Your task to perform on an android device: How much does a 2 bedroom apartment rent for in Los Angeles? Image 0: 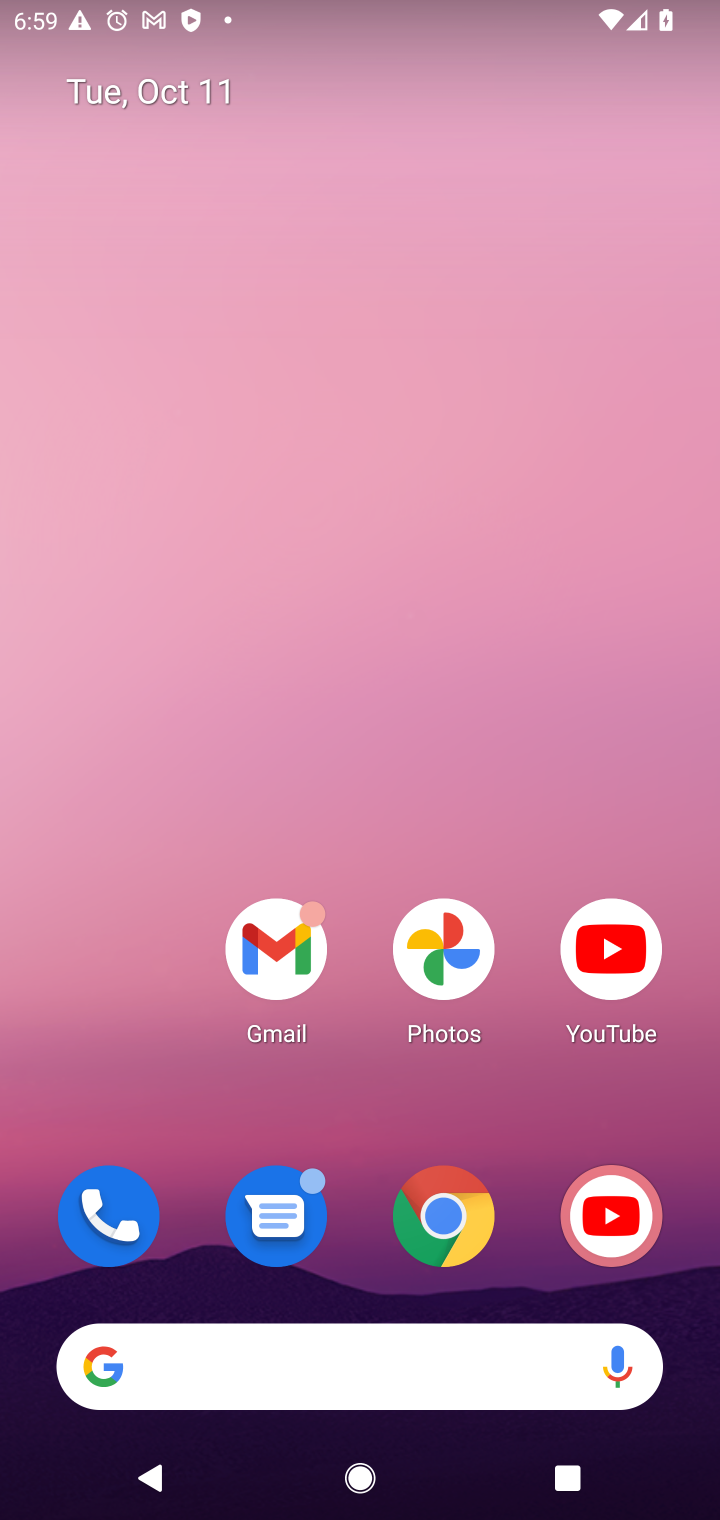
Step 0: click (413, 1222)
Your task to perform on an android device: How much does a 2 bedroom apartment rent for in Los Angeles? Image 1: 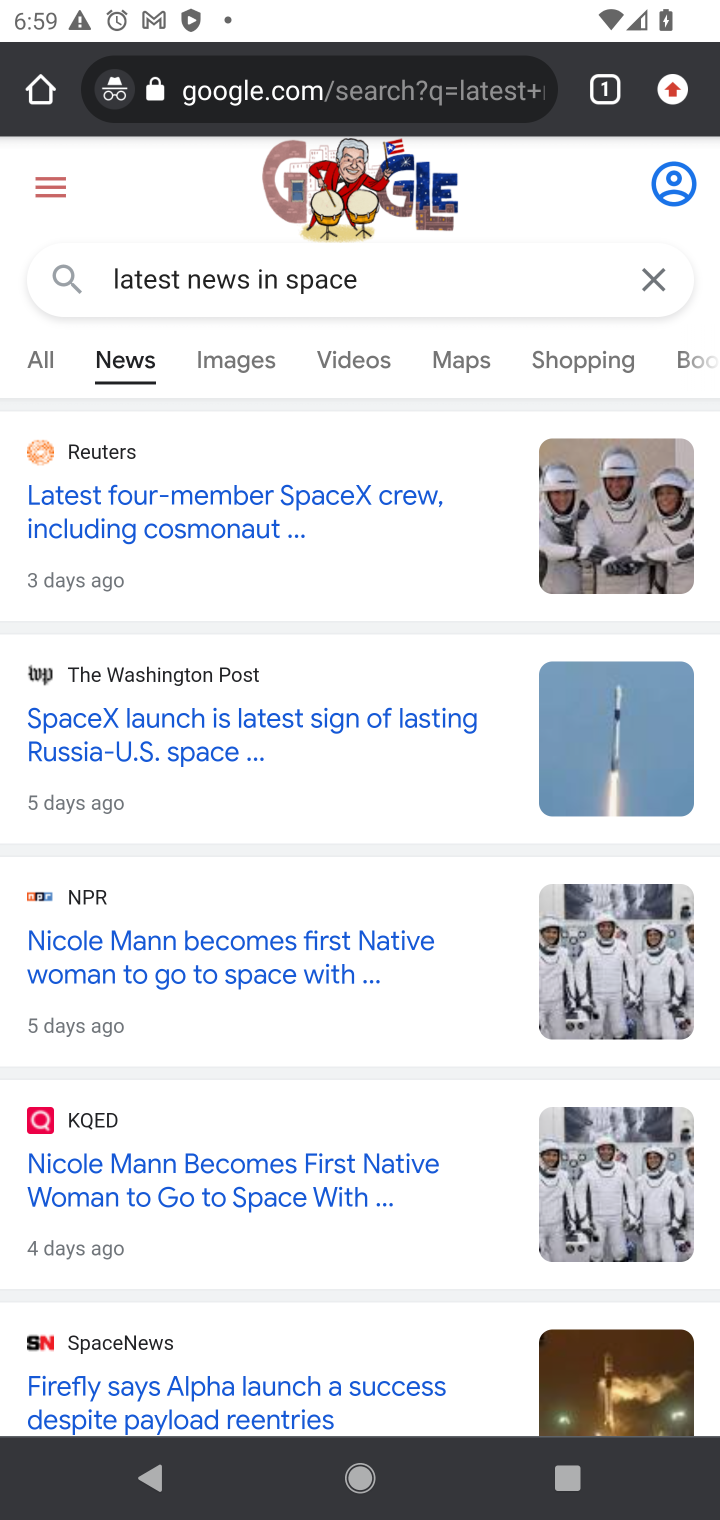
Step 1: click (43, 375)
Your task to perform on an android device: How much does a 2 bedroom apartment rent for in Los Angeles? Image 2: 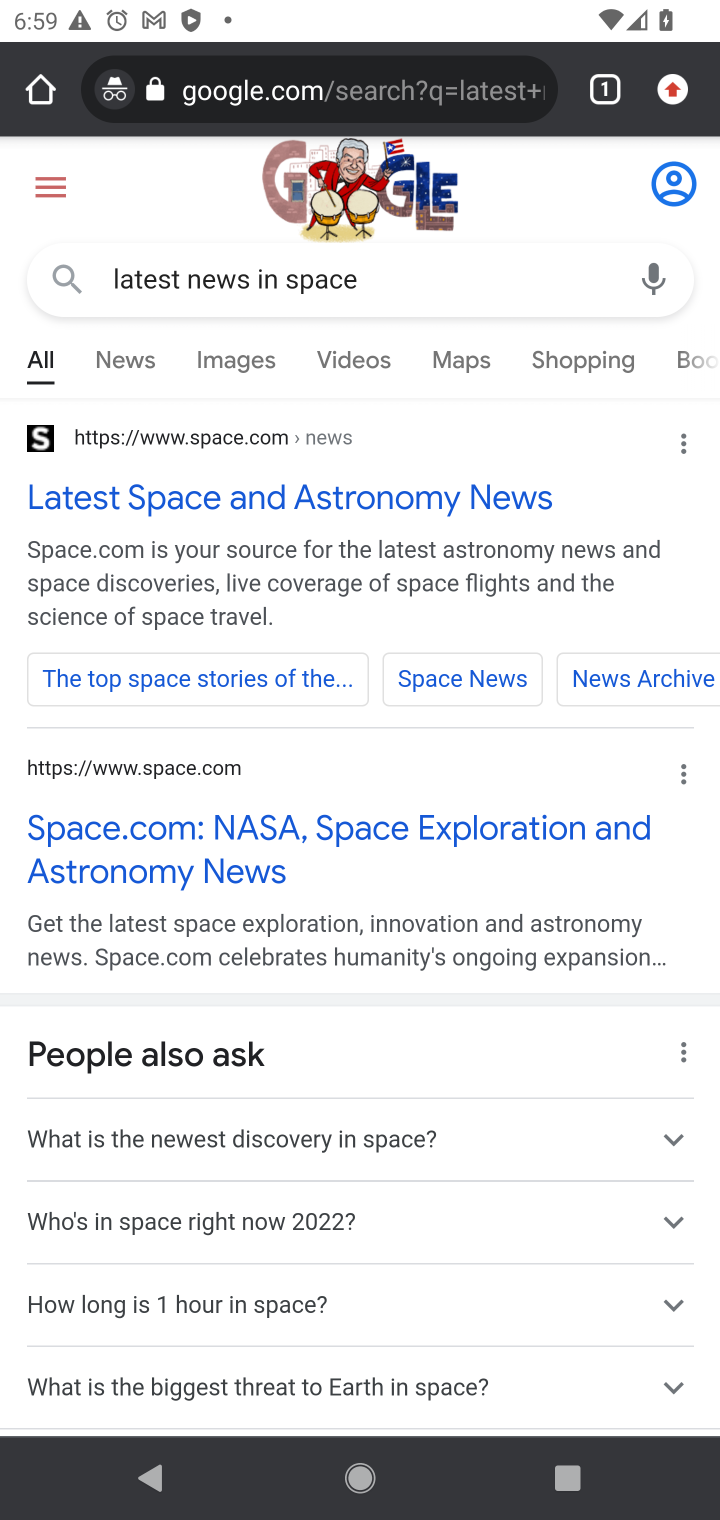
Step 2: click (378, 295)
Your task to perform on an android device: How much does a 2 bedroom apartment rent for in Los Angeles? Image 3: 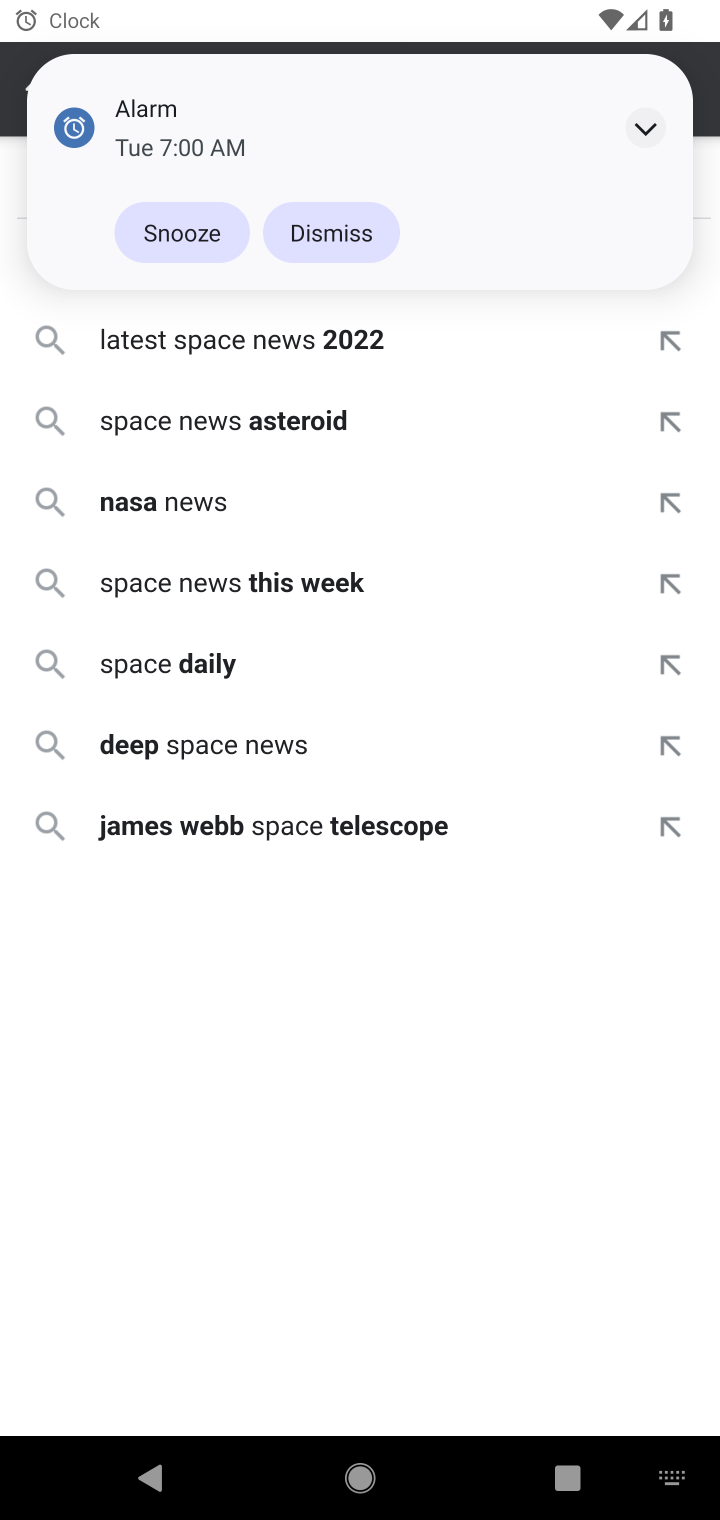
Step 3: click (203, 235)
Your task to perform on an android device: How much does a 2 bedroom apartment rent for in Los Angeles? Image 4: 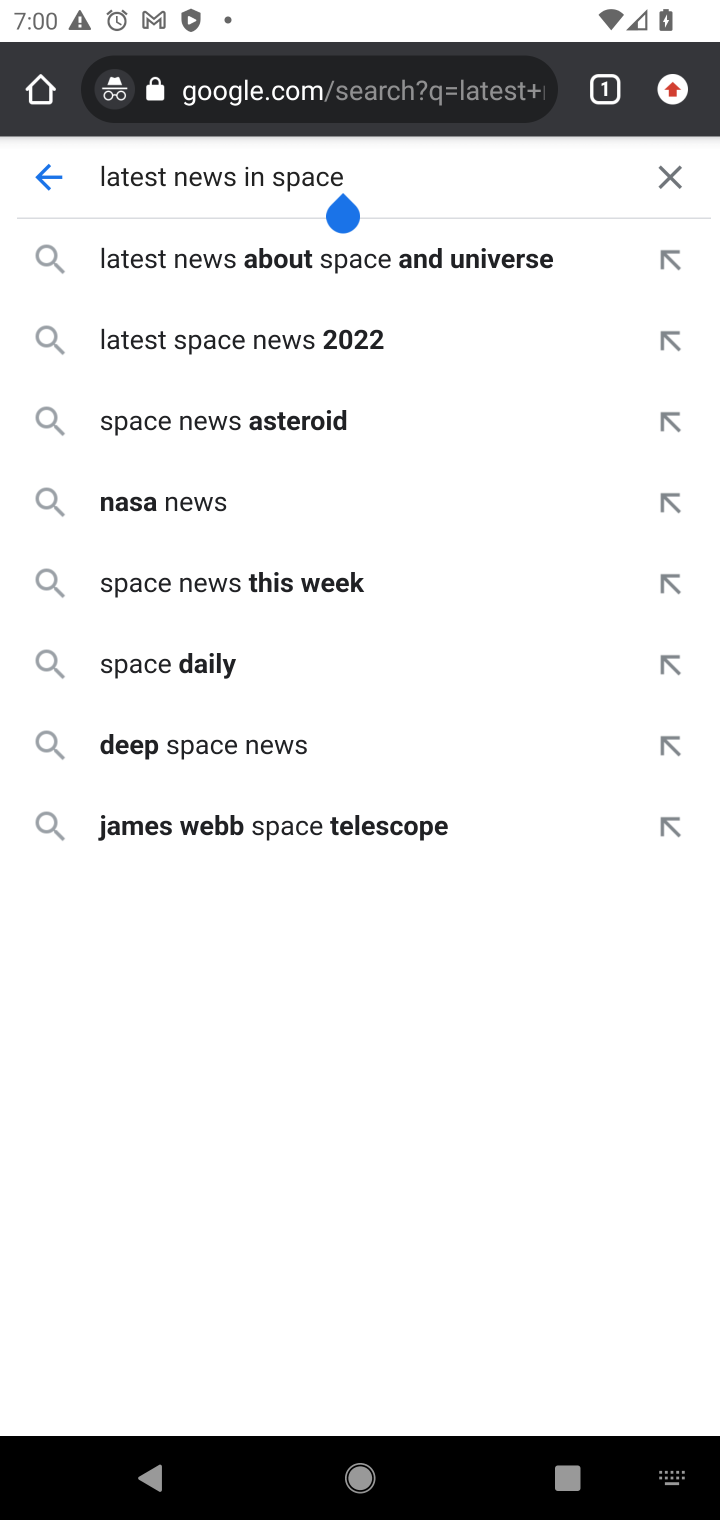
Step 4: click (662, 167)
Your task to perform on an android device: How much does a 2 bedroom apartment rent for in Los Angeles? Image 5: 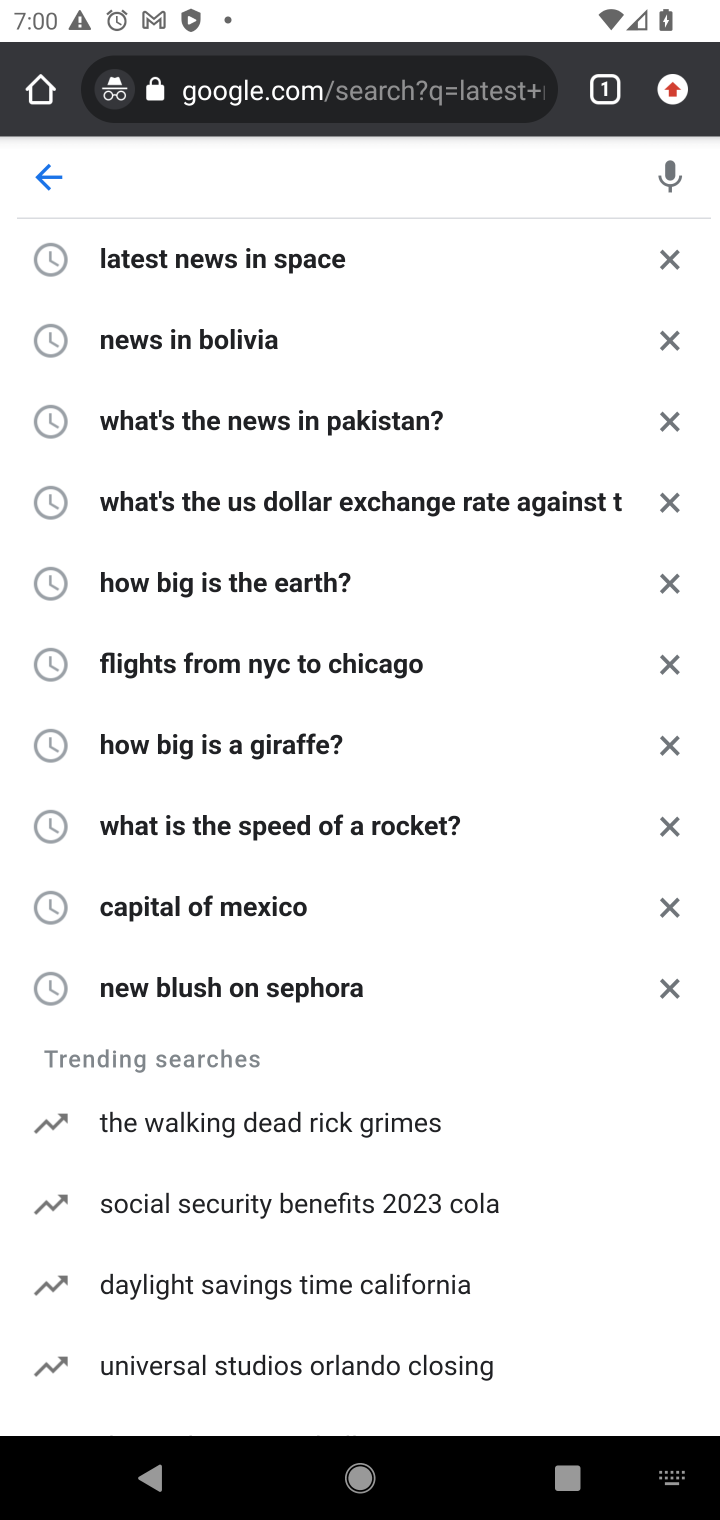
Step 5: type "How much does a 2 bedroom apartment rent for in Los Angeles?"
Your task to perform on an android device: How much does a 2 bedroom apartment rent for in Los Angeles? Image 6: 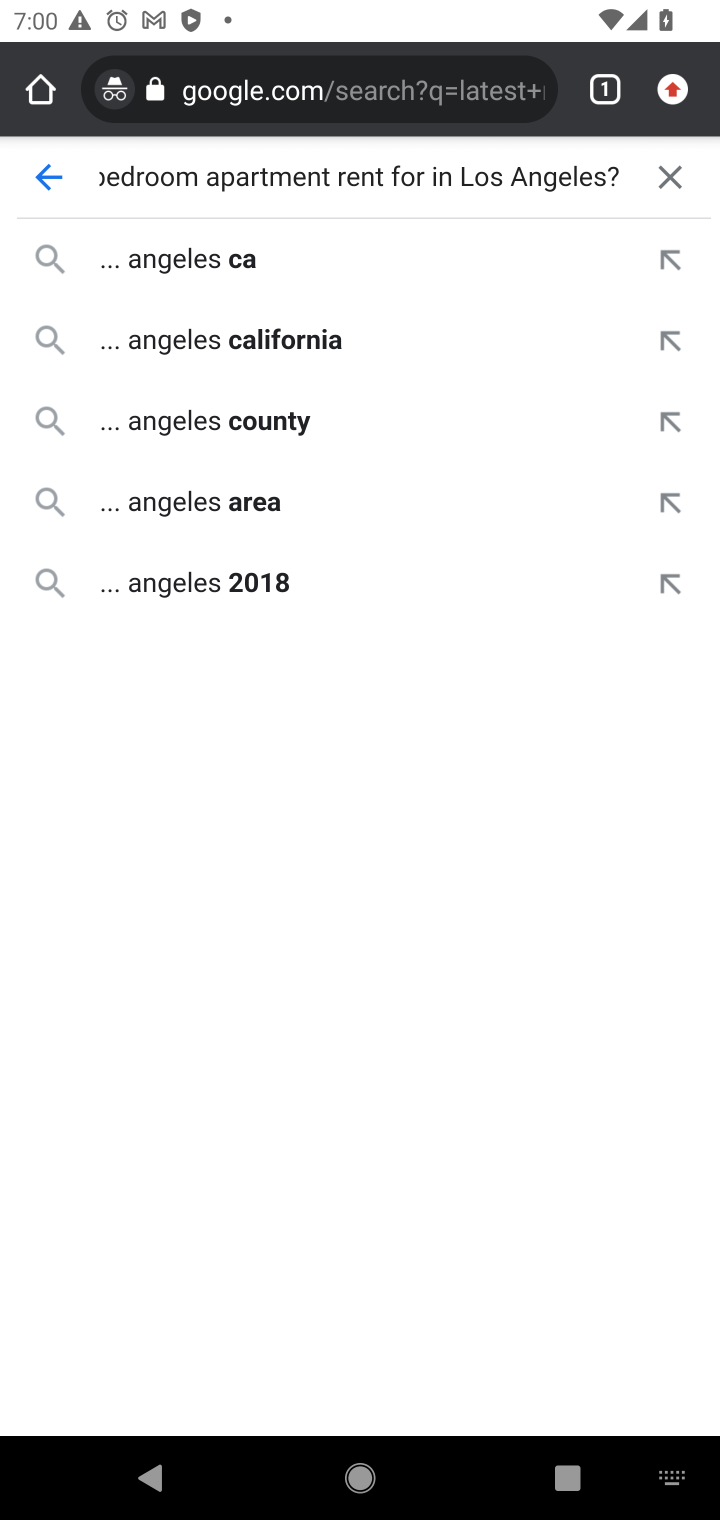
Step 6: press enter
Your task to perform on an android device: How much does a 2 bedroom apartment rent for in Los Angeles? Image 7: 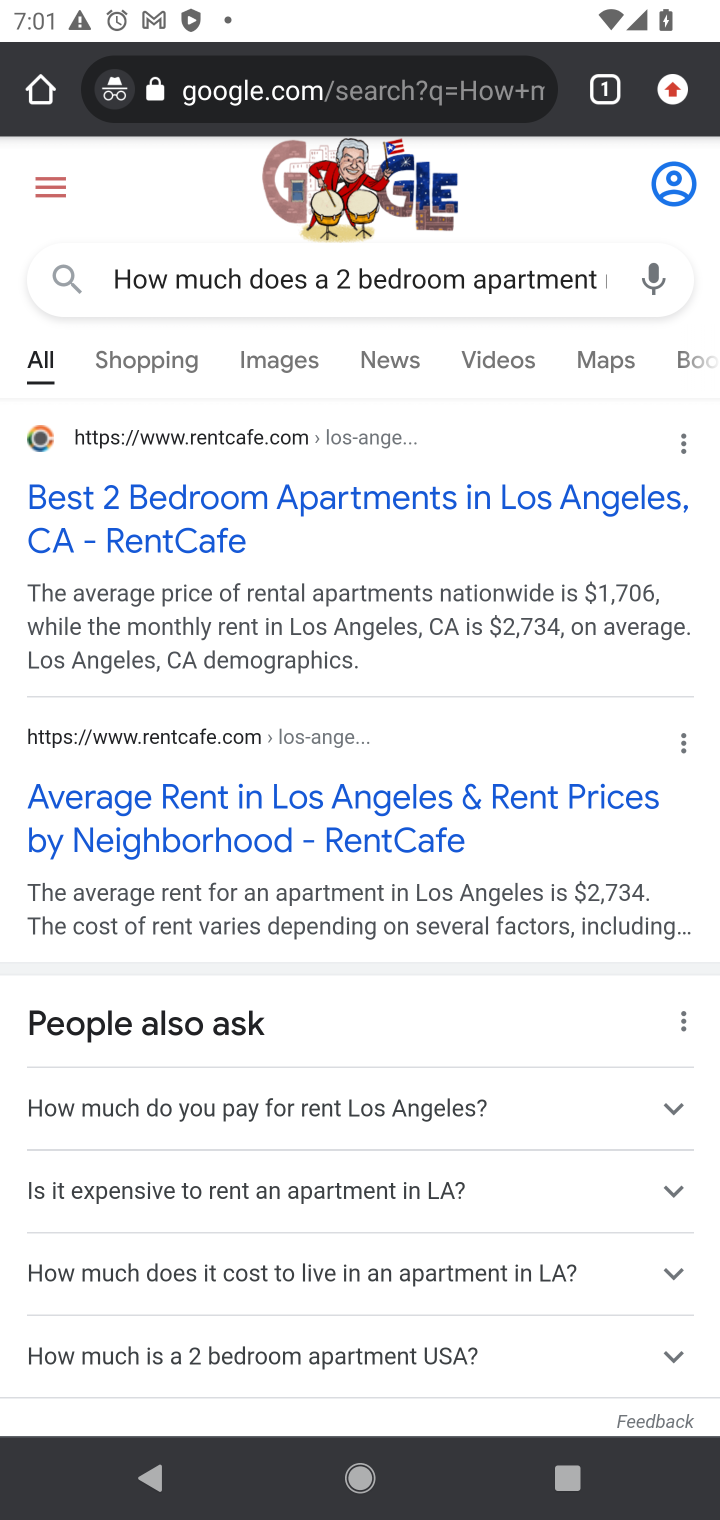
Step 7: drag from (353, 873) to (138, 61)
Your task to perform on an android device: How much does a 2 bedroom apartment rent for in Los Angeles? Image 8: 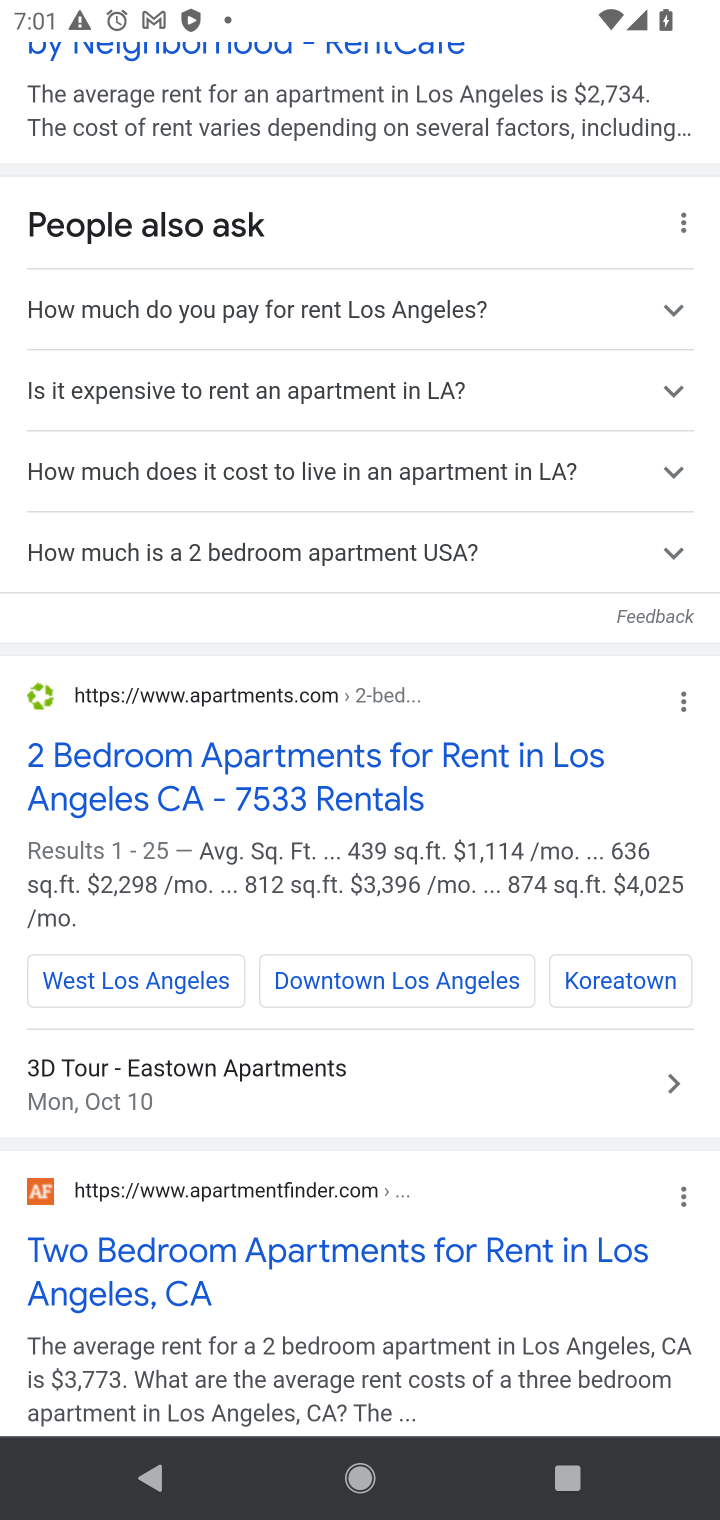
Step 8: click (258, 750)
Your task to perform on an android device: How much does a 2 bedroom apartment rent for in Los Angeles? Image 9: 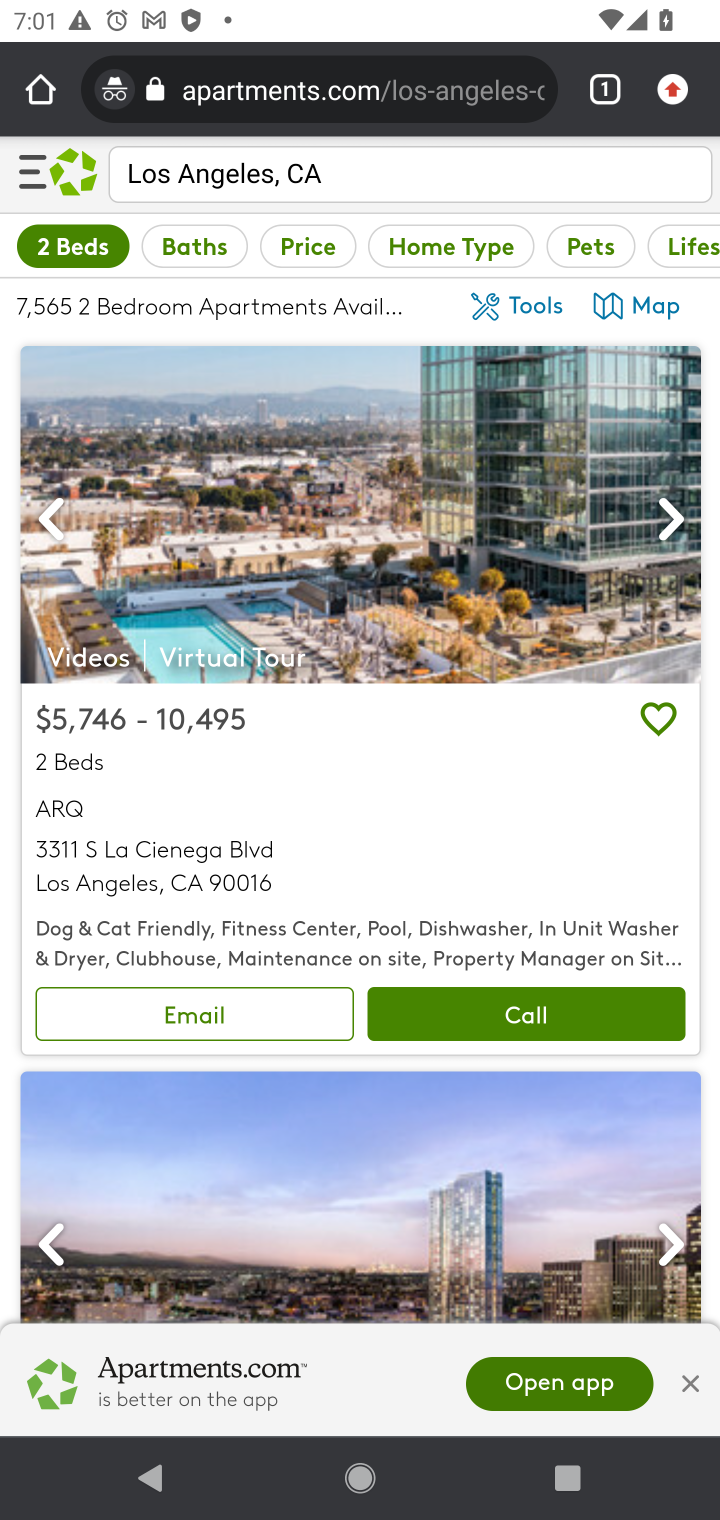
Step 9: task complete